Your task to perform on an android device: make emails show in primary in the gmail app Image 0: 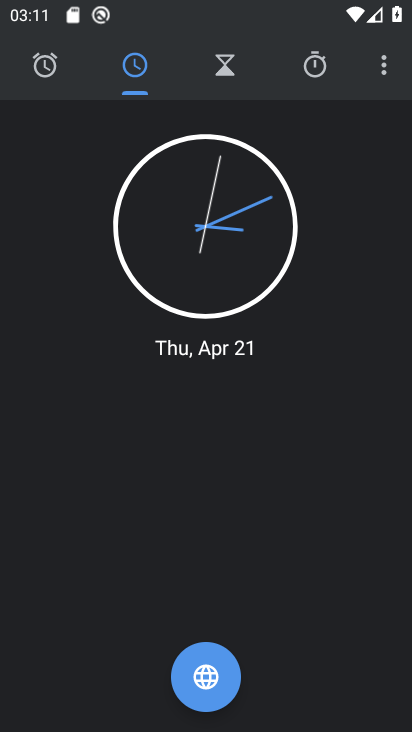
Step 0: press home button
Your task to perform on an android device: make emails show in primary in the gmail app Image 1: 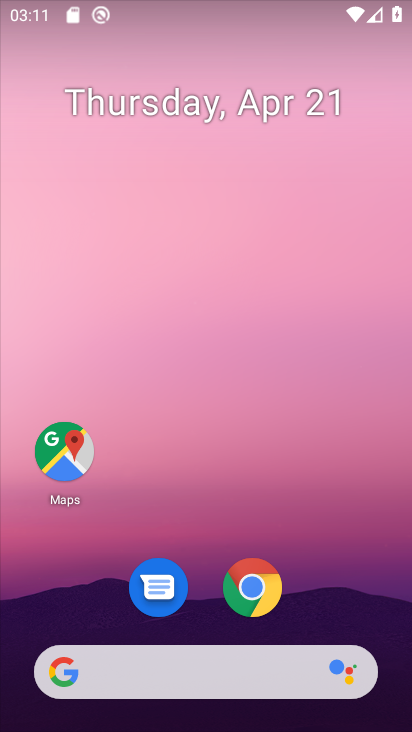
Step 1: drag from (348, 604) to (383, 196)
Your task to perform on an android device: make emails show in primary in the gmail app Image 2: 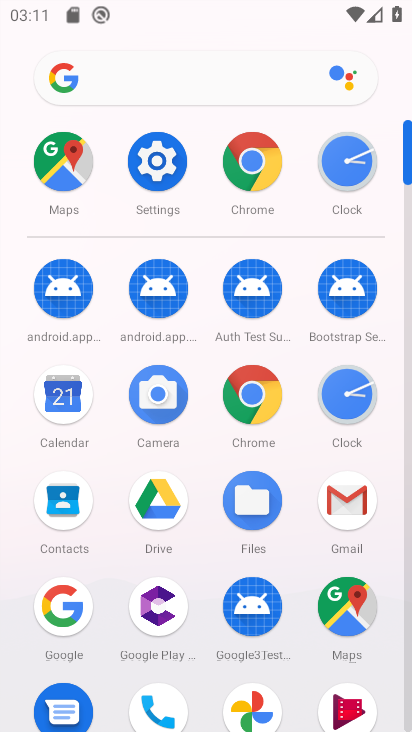
Step 2: click (365, 501)
Your task to perform on an android device: make emails show in primary in the gmail app Image 3: 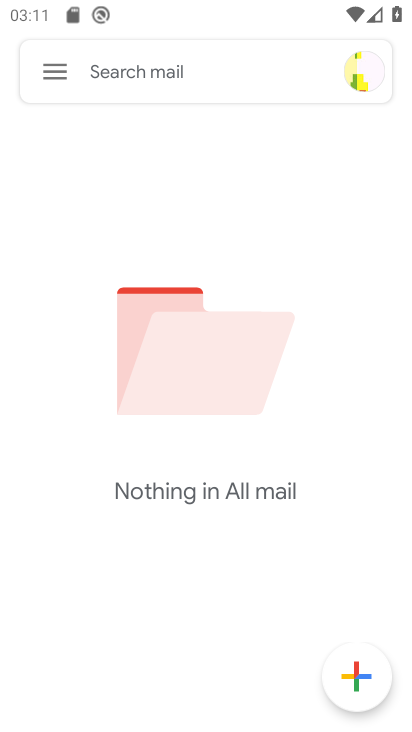
Step 3: click (33, 74)
Your task to perform on an android device: make emails show in primary in the gmail app Image 4: 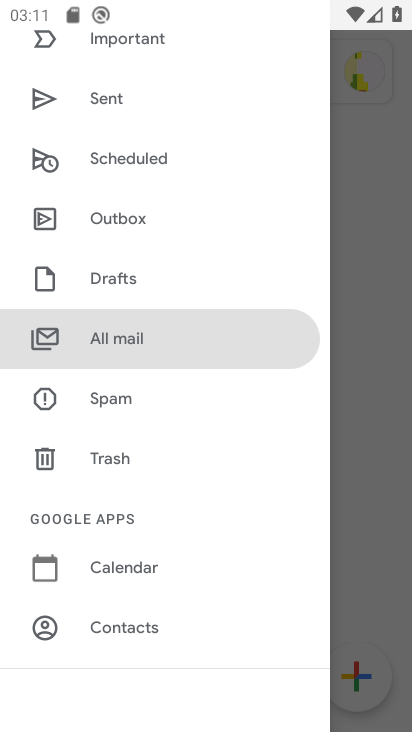
Step 4: drag from (219, 612) to (225, 419)
Your task to perform on an android device: make emails show in primary in the gmail app Image 5: 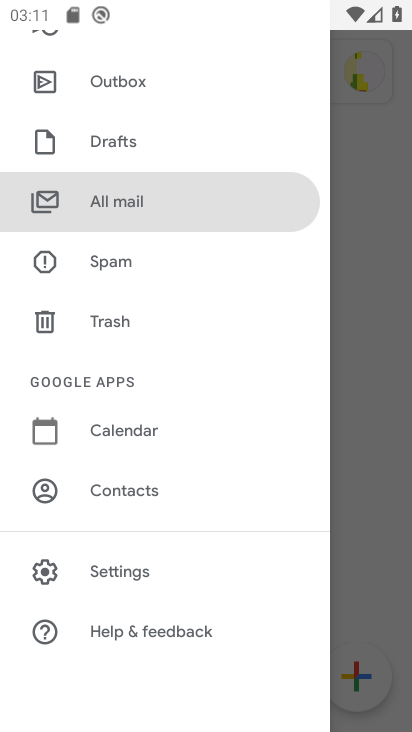
Step 5: drag from (210, 562) to (225, 444)
Your task to perform on an android device: make emails show in primary in the gmail app Image 6: 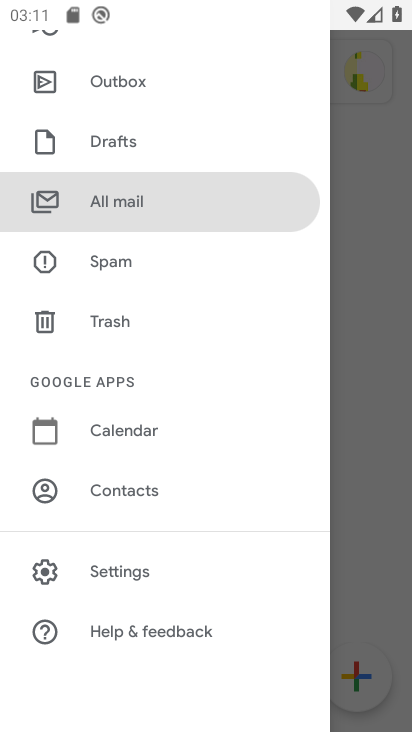
Step 6: click (137, 569)
Your task to perform on an android device: make emails show in primary in the gmail app Image 7: 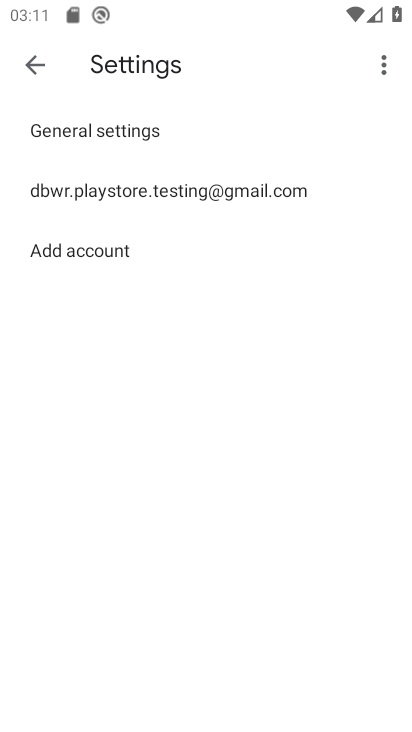
Step 7: click (201, 197)
Your task to perform on an android device: make emails show in primary in the gmail app Image 8: 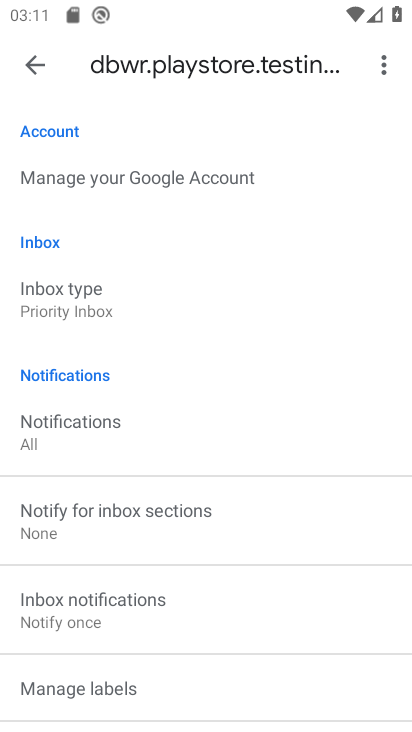
Step 8: drag from (264, 581) to (270, 471)
Your task to perform on an android device: make emails show in primary in the gmail app Image 9: 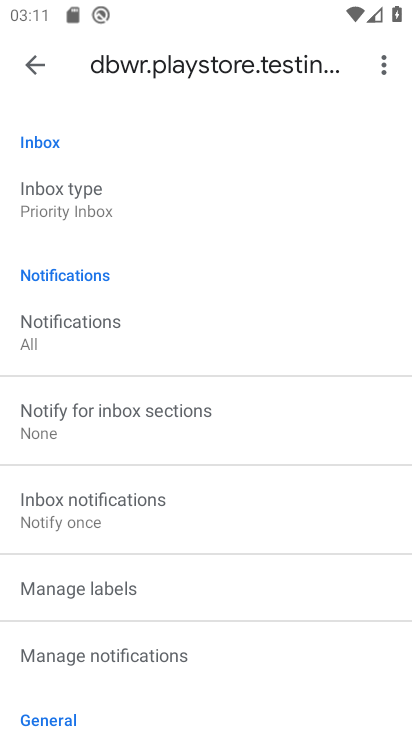
Step 9: drag from (263, 613) to (268, 494)
Your task to perform on an android device: make emails show in primary in the gmail app Image 10: 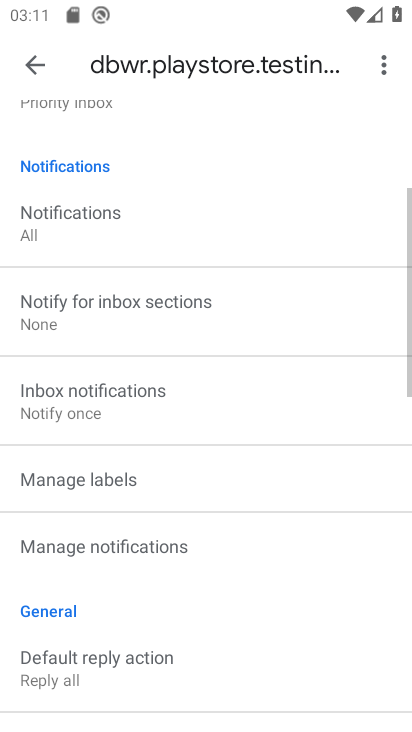
Step 10: drag from (278, 622) to (283, 453)
Your task to perform on an android device: make emails show in primary in the gmail app Image 11: 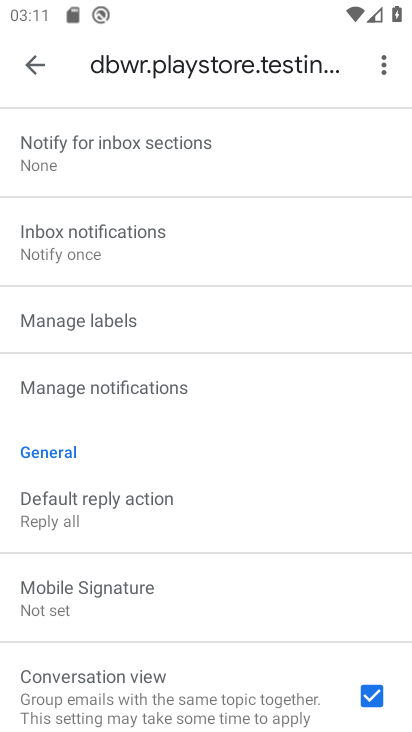
Step 11: drag from (276, 572) to (284, 412)
Your task to perform on an android device: make emails show in primary in the gmail app Image 12: 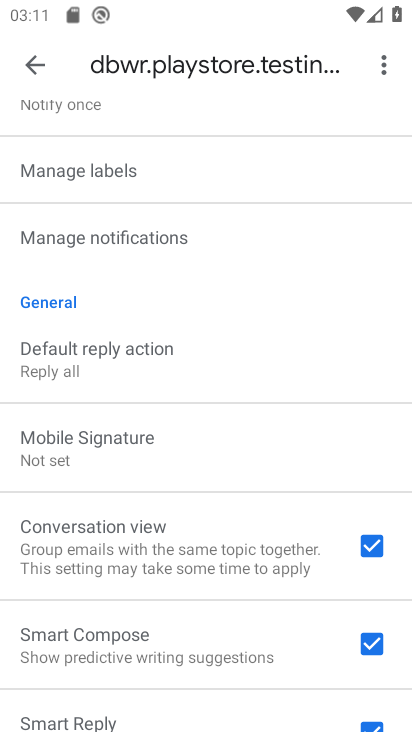
Step 12: drag from (276, 610) to (284, 394)
Your task to perform on an android device: make emails show in primary in the gmail app Image 13: 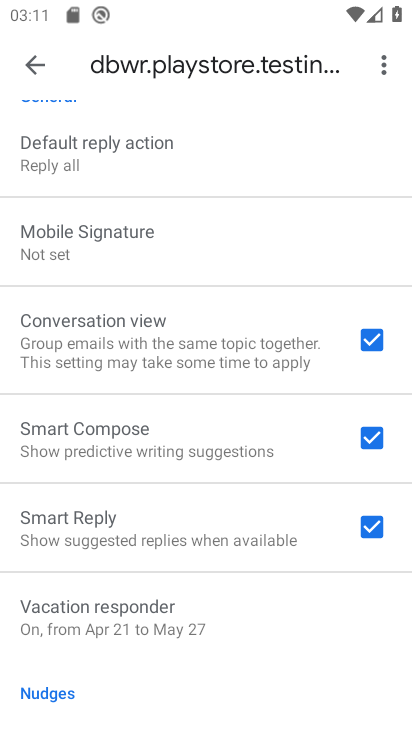
Step 13: drag from (291, 337) to (289, 471)
Your task to perform on an android device: make emails show in primary in the gmail app Image 14: 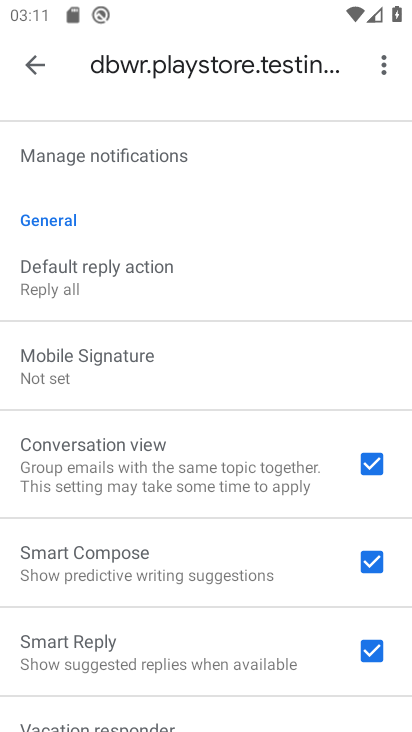
Step 14: drag from (293, 307) to (299, 443)
Your task to perform on an android device: make emails show in primary in the gmail app Image 15: 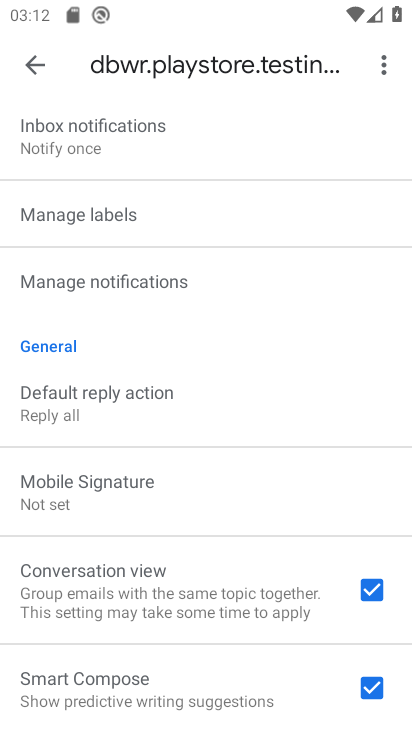
Step 15: drag from (294, 325) to (297, 459)
Your task to perform on an android device: make emails show in primary in the gmail app Image 16: 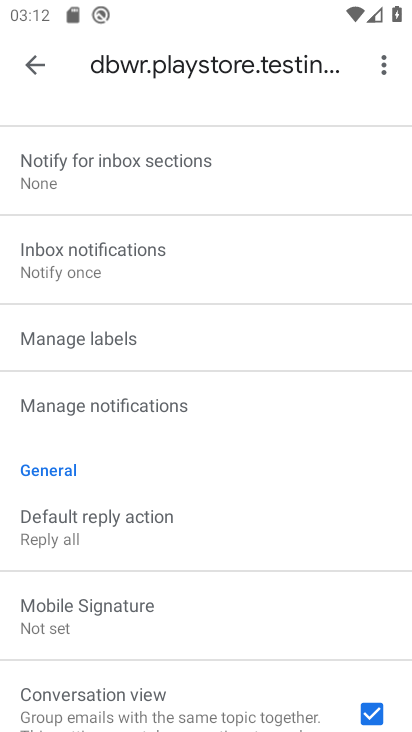
Step 16: drag from (288, 295) to (284, 447)
Your task to perform on an android device: make emails show in primary in the gmail app Image 17: 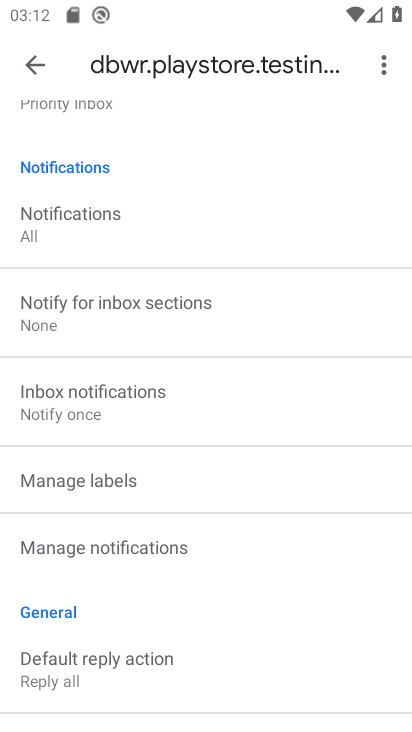
Step 17: drag from (283, 259) to (272, 439)
Your task to perform on an android device: make emails show in primary in the gmail app Image 18: 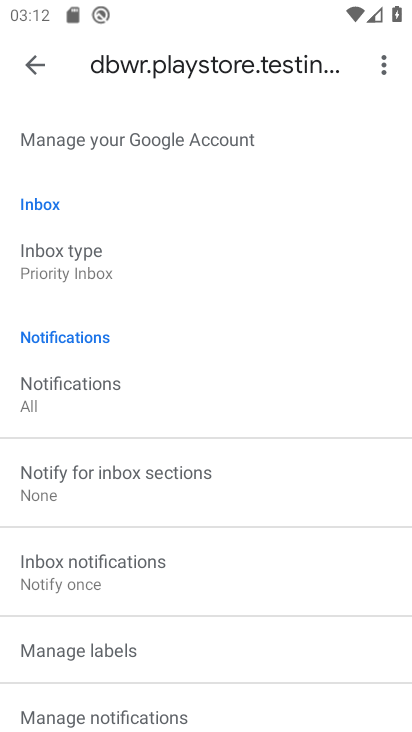
Step 18: click (73, 272)
Your task to perform on an android device: make emails show in primary in the gmail app Image 19: 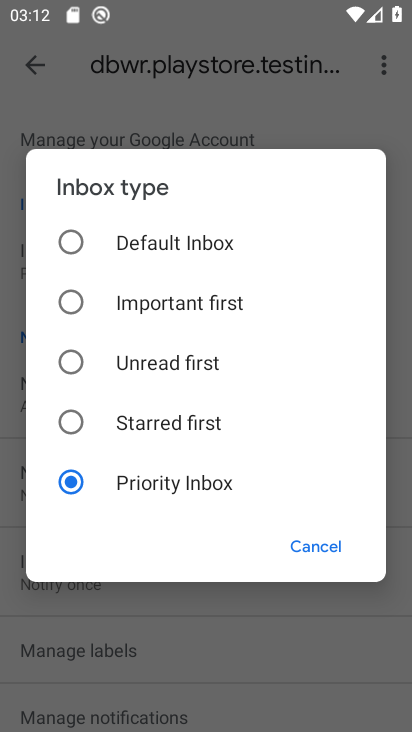
Step 19: click (68, 241)
Your task to perform on an android device: make emails show in primary in the gmail app Image 20: 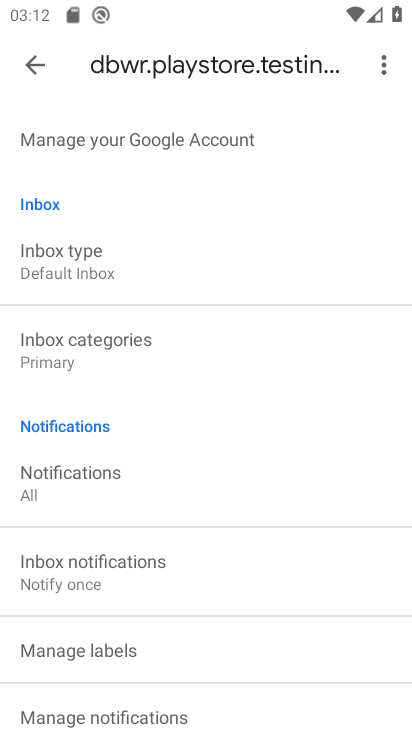
Step 20: click (103, 358)
Your task to perform on an android device: make emails show in primary in the gmail app Image 21: 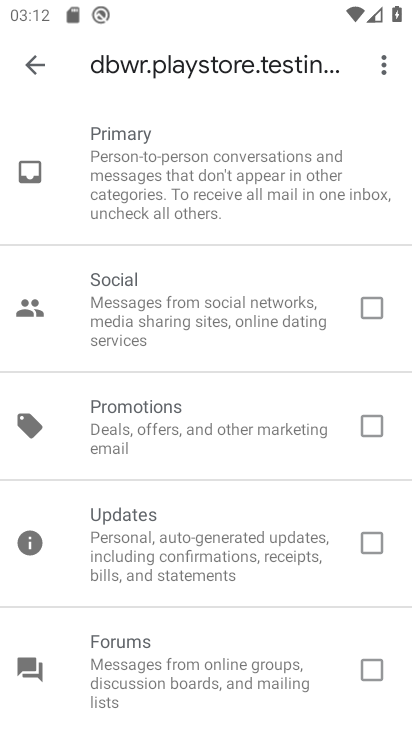
Step 21: task complete